Your task to perform on an android device: all mails in gmail Image 0: 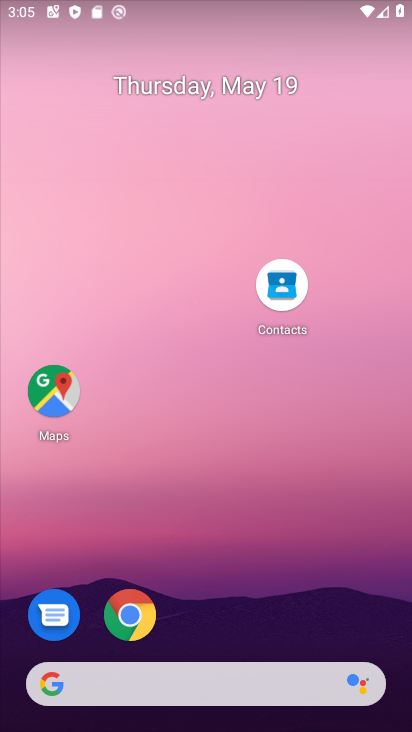
Step 0: drag from (217, 658) to (204, 187)
Your task to perform on an android device: all mails in gmail Image 1: 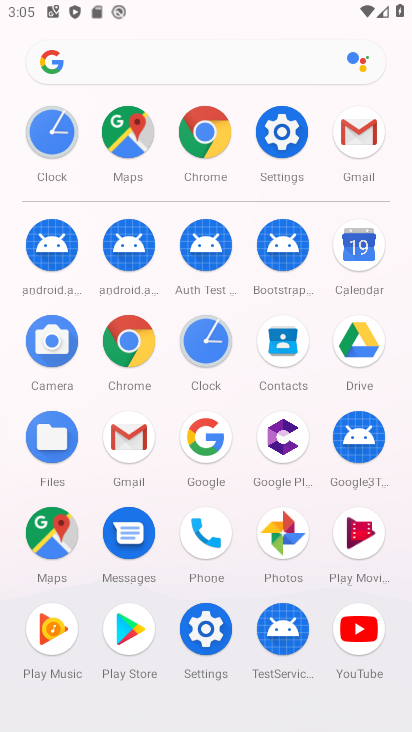
Step 1: click (364, 160)
Your task to perform on an android device: all mails in gmail Image 2: 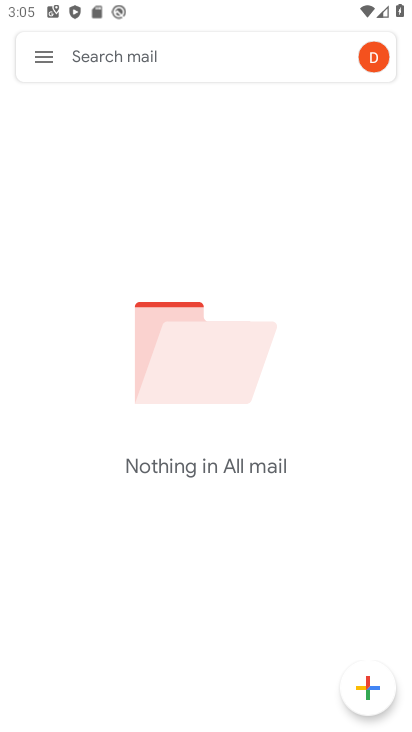
Step 2: task complete